Your task to perform on an android device: search for starred emails in the gmail app Image 0: 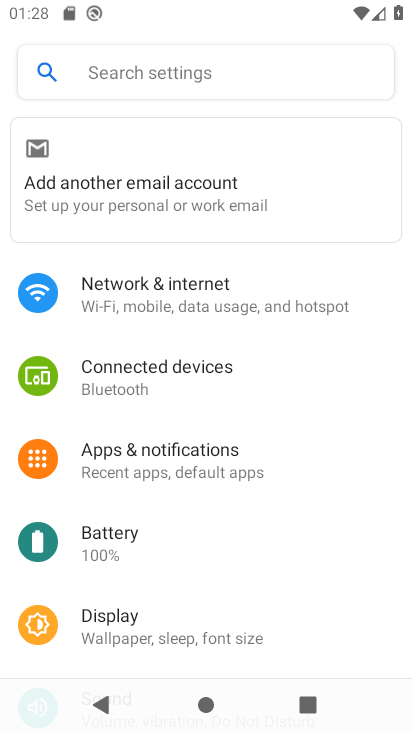
Step 0: press home button
Your task to perform on an android device: search for starred emails in the gmail app Image 1: 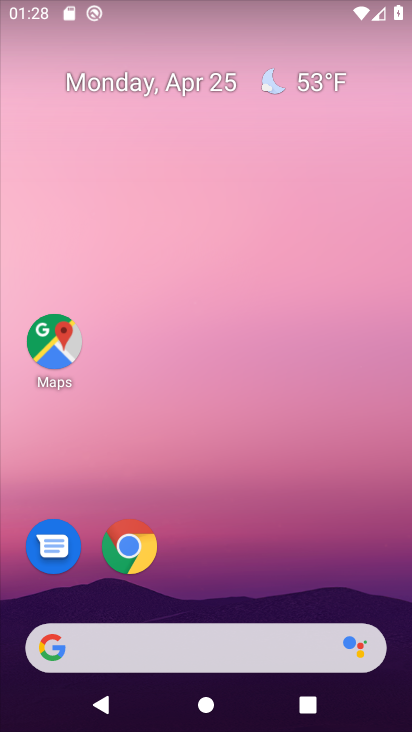
Step 1: drag from (228, 526) to (213, 178)
Your task to perform on an android device: search for starred emails in the gmail app Image 2: 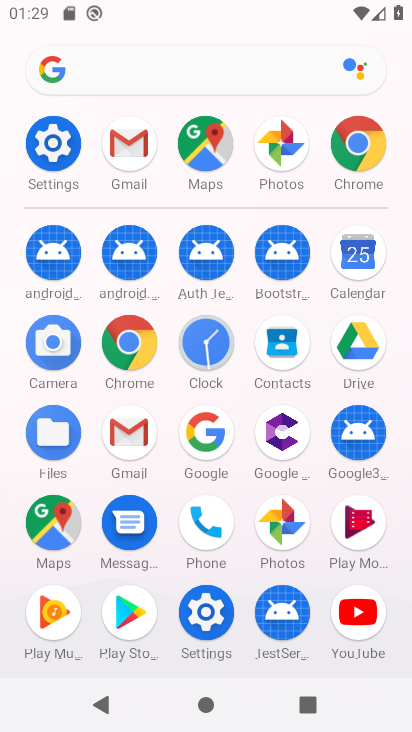
Step 2: click (137, 140)
Your task to perform on an android device: search for starred emails in the gmail app Image 3: 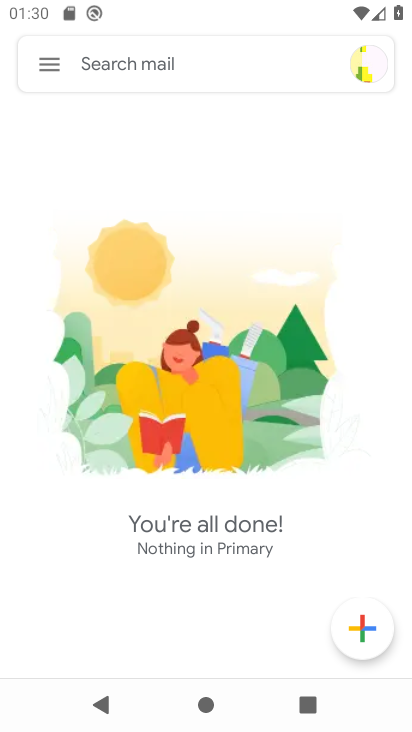
Step 3: click (41, 62)
Your task to perform on an android device: search for starred emails in the gmail app Image 4: 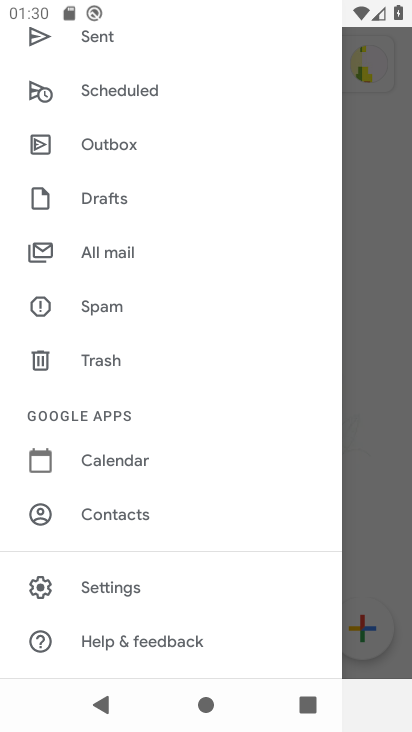
Step 4: drag from (173, 126) to (199, 691)
Your task to perform on an android device: search for starred emails in the gmail app Image 5: 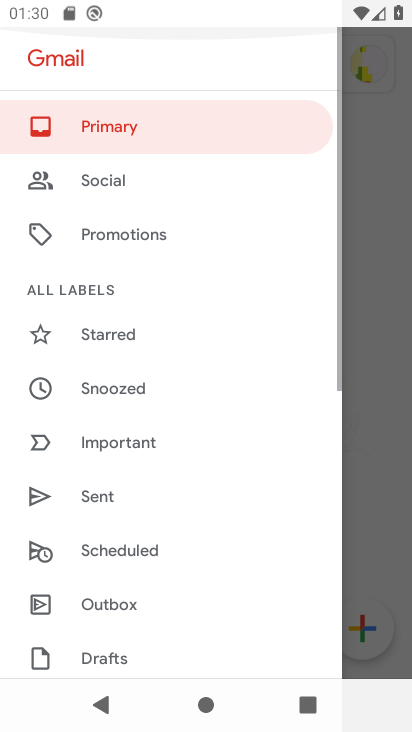
Step 5: drag from (210, 253) to (215, 618)
Your task to perform on an android device: search for starred emails in the gmail app Image 6: 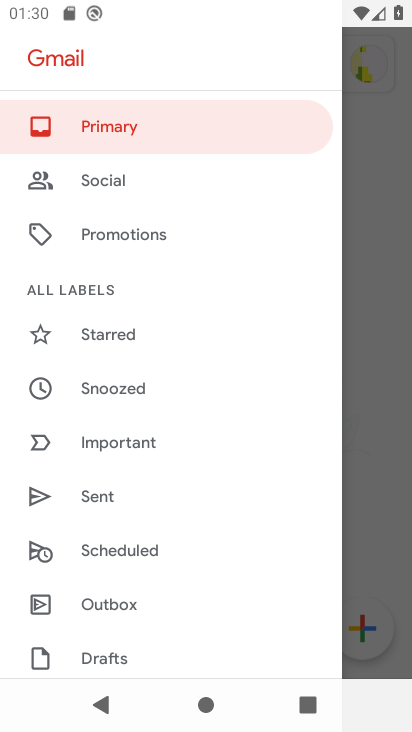
Step 6: click (126, 326)
Your task to perform on an android device: search for starred emails in the gmail app Image 7: 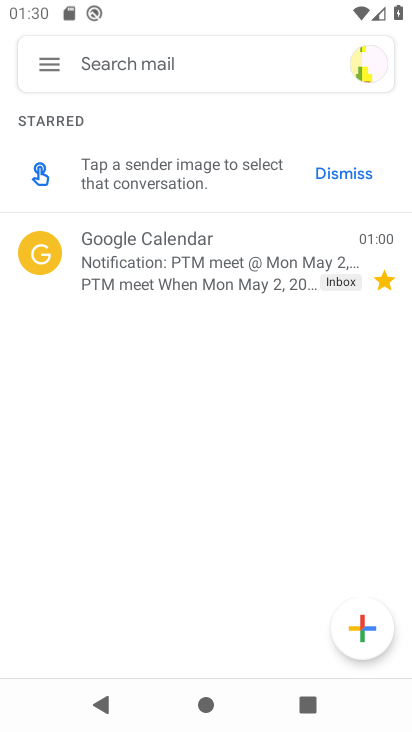
Step 7: task complete